Your task to perform on an android device: Open eBay Image 0: 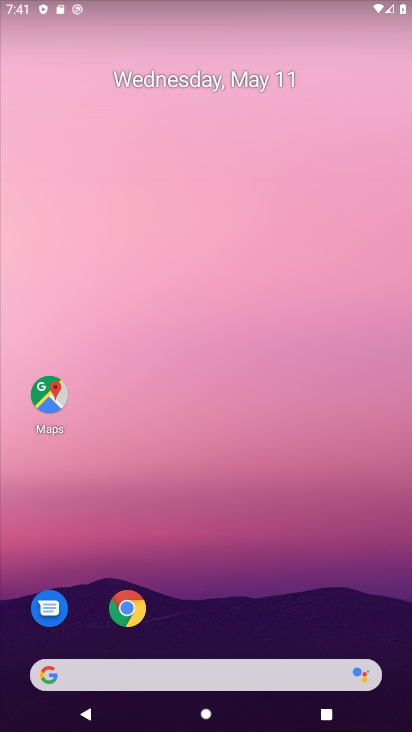
Step 0: click (129, 608)
Your task to perform on an android device: Open eBay Image 1: 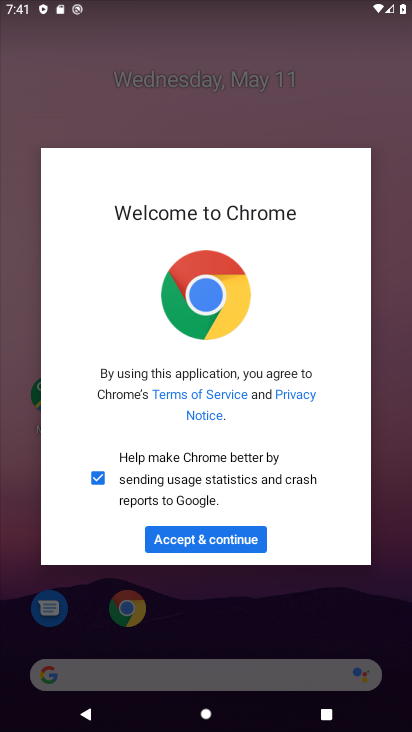
Step 1: click (247, 540)
Your task to perform on an android device: Open eBay Image 2: 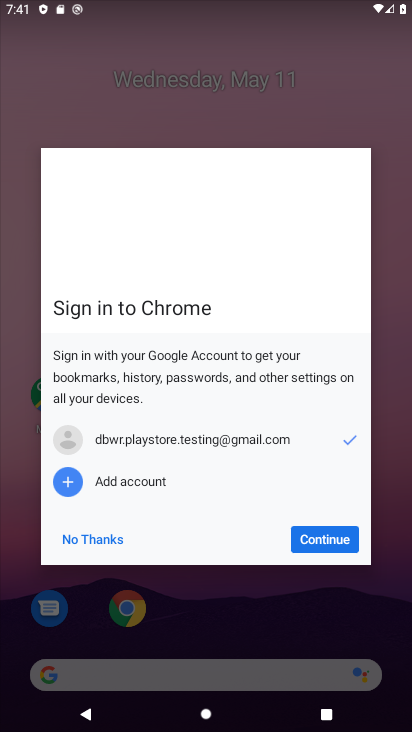
Step 2: click (313, 539)
Your task to perform on an android device: Open eBay Image 3: 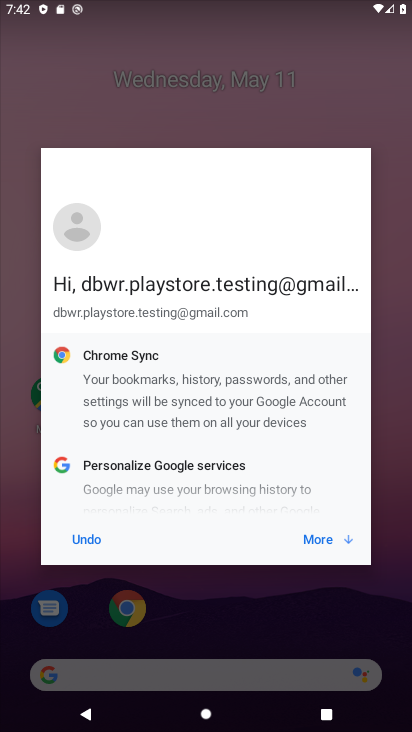
Step 3: click (313, 539)
Your task to perform on an android device: Open eBay Image 4: 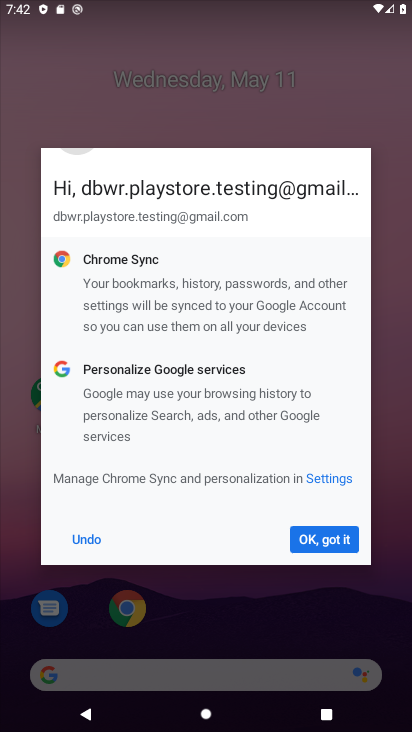
Step 4: click (313, 539)
Your task to perform on an android device: Open eBay Image 5: 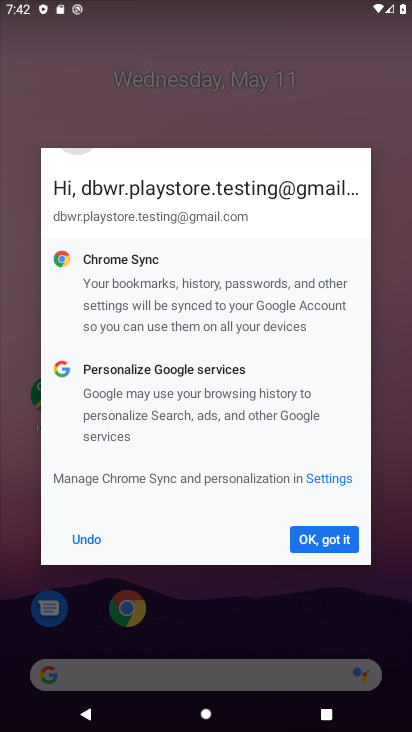
Step 5: click (313, 539)
Your task to perform on an android device: Open eBay Image 6: 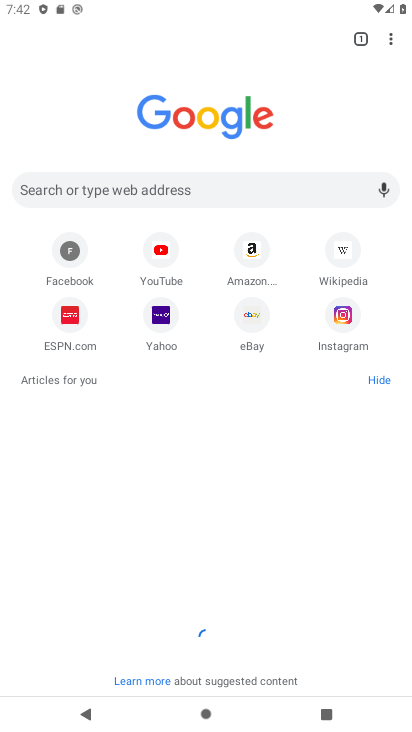
Step 6: click (249, 321)
Your task to perform on an android device: Open eBay Image 7: 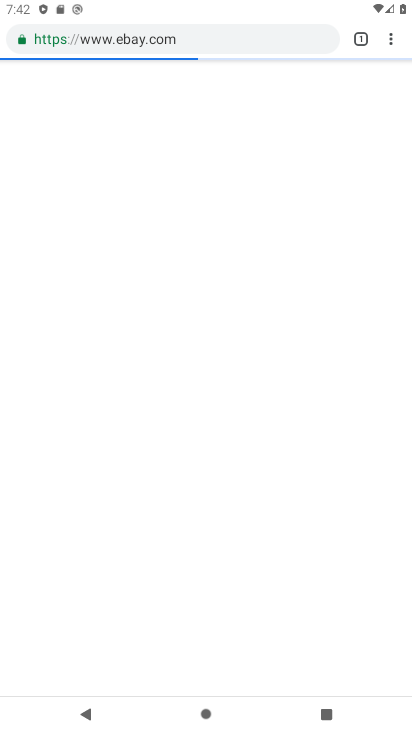
Step 7: task complete